Your task to perform on an android device: turn pop-ups on in chrome Image 0: 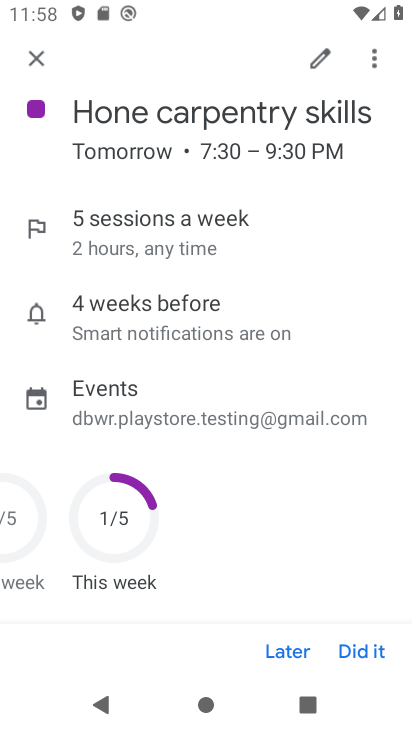
Step 0: press home button
Your task to perform on an android device: turn pop-ups on in chrome Image 1: 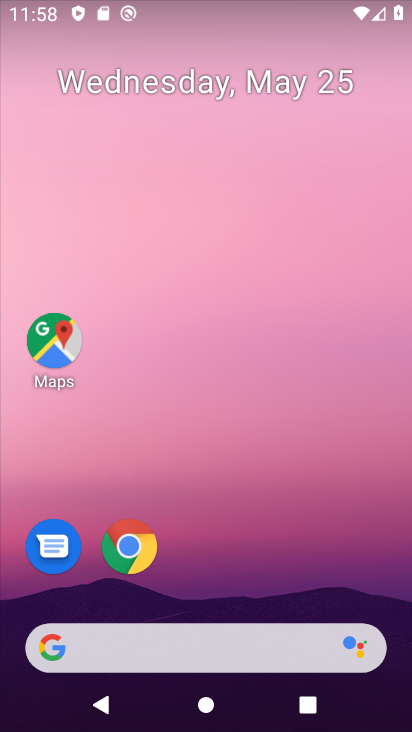
Step 1: drag from (375, 614) to (315, 39)
Your task to perform on an android device: turn pop-ups on in chrome Image 2: 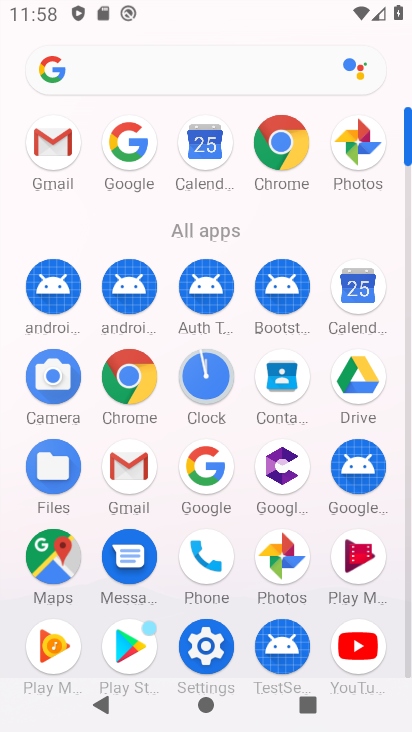
Step 2: click (131, 373)
Your task to perform on an android device: turn pop-ups on in chrome Image 3: 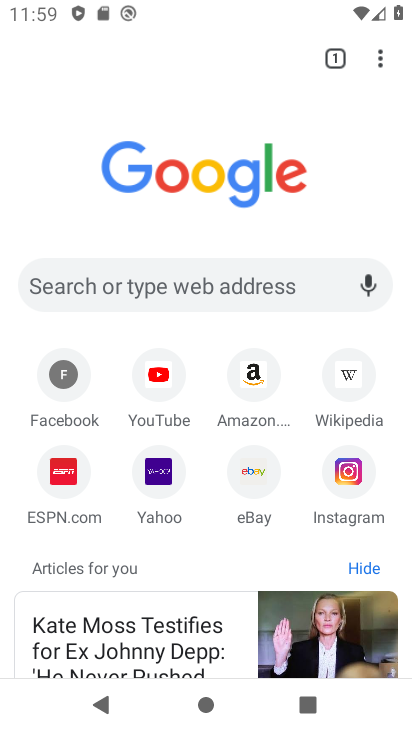
Step 3: click (386, 51)
Your task to perform on an android device: turn pop-ups on in chrome Image 4: 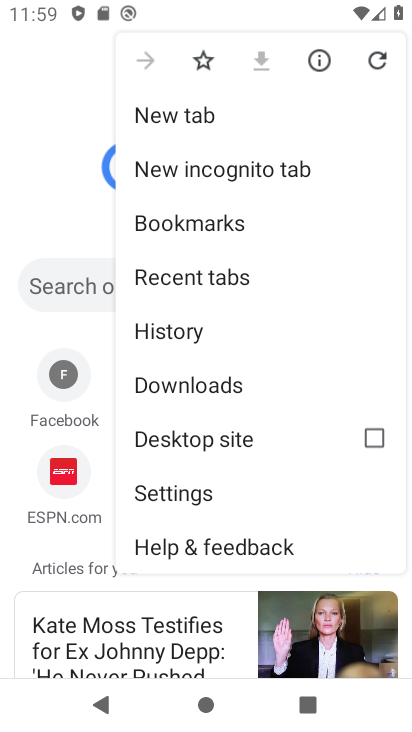
Step 4: click (201, 495)
Your task to perform on an android device: turn pop-ups on in chrome Image 5: 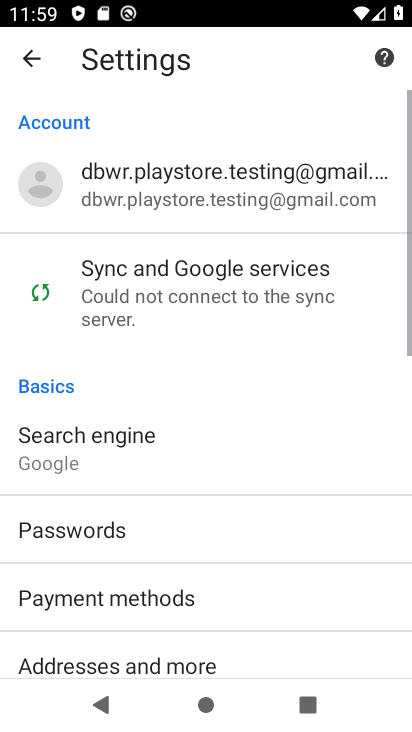
Step 5: drag from (179, 637) to (175, 243)
Your task to perform on an android device: turn pop-ups on in chrome Image 6: 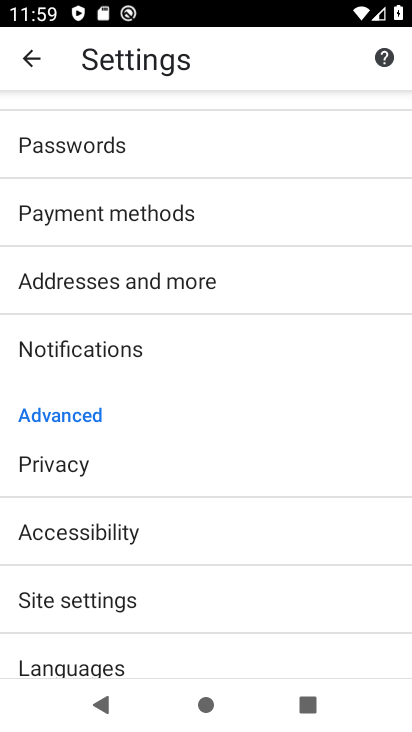
Step 6: click (163, 603)
Your task to perform on an android device: turn pop-ups on in chrome Image 7: 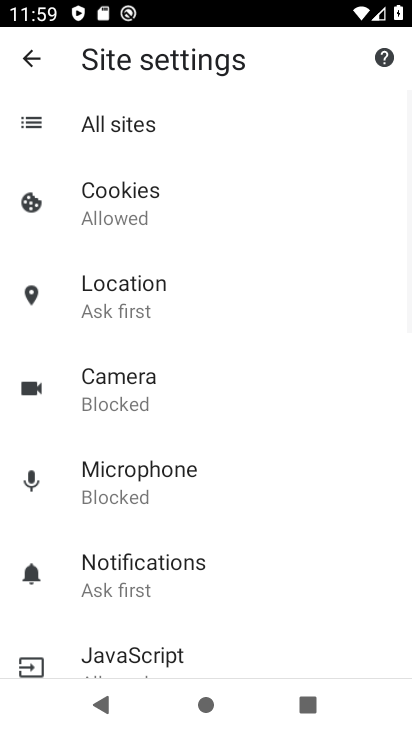
Step 7: drag from (160, 610) to (180, 251)
Your task to perform on an android device: turn pop-ups on in chrome Image 8: 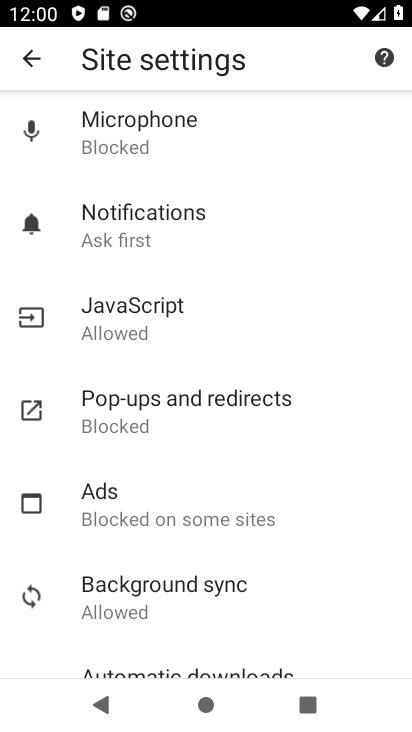
Step 8: click (163, 399)
Your task to perform on an android device: turn pop-ups on in chrome Image 9: 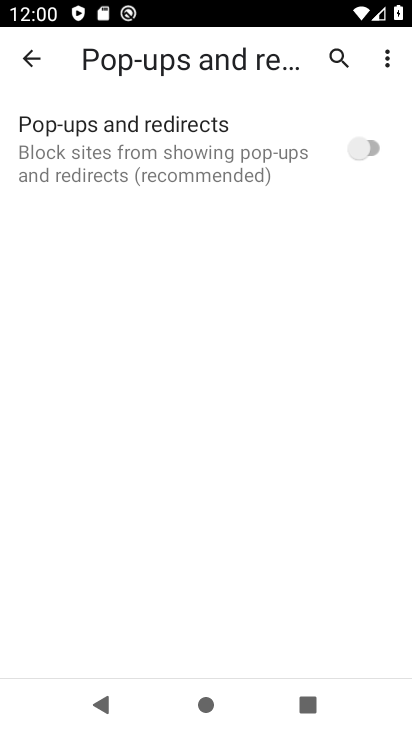
Step 9: click (325, 153)
Your task to perform on an android device: turn pop-ups on in chrome Image 10: 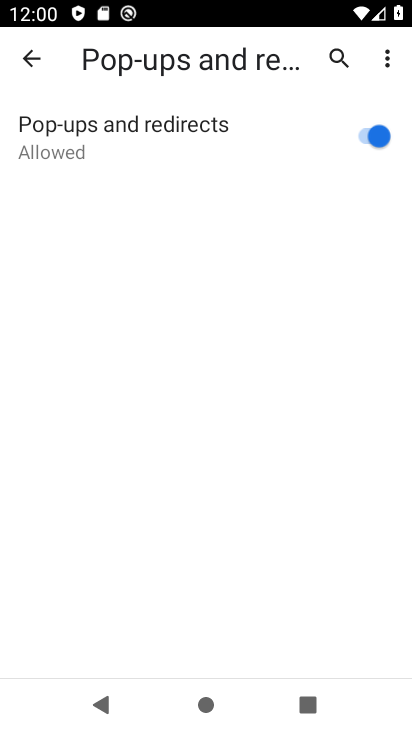
Step 10: task complete